Your task to perform on an android device: see sites visited before in the chrome app Image 0: 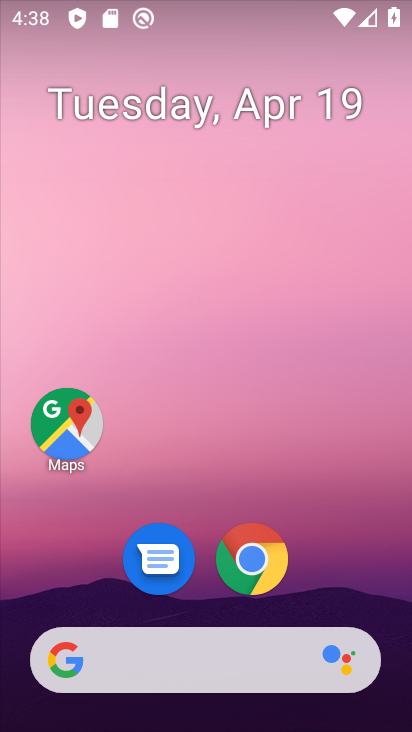
Step 0: click (268, 574)
Your task to perform on an android device: see sites visited before in the chrome app Image 1: 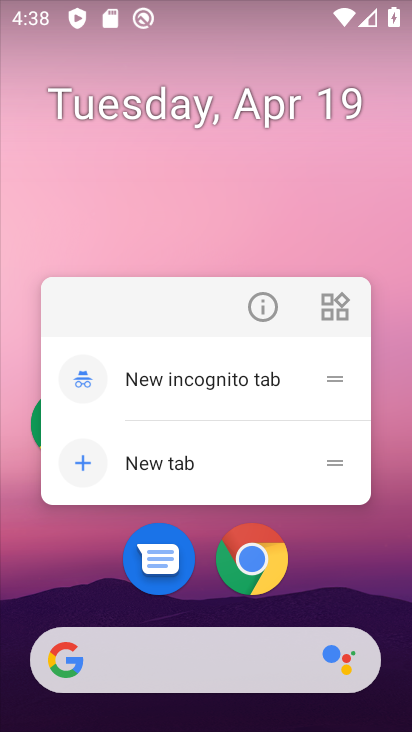
Step 1: click (268, 574)
Your task to perform on an android device: see sites visited before in the chrome app Image 2: 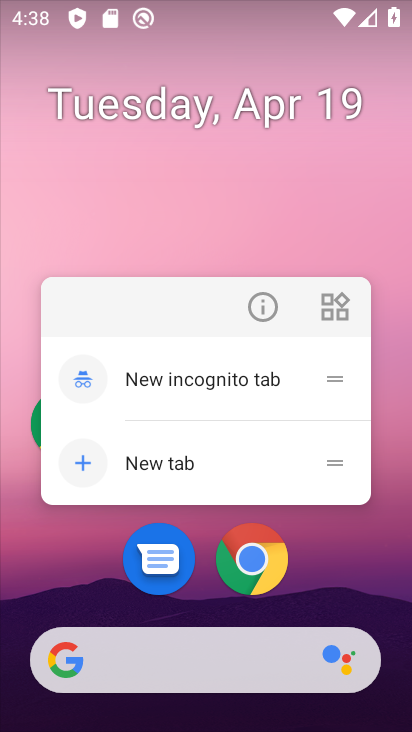
Step 2: click (256, 574)
Your task to perform on an android device: see sites visited before in the chrome app Image 3: 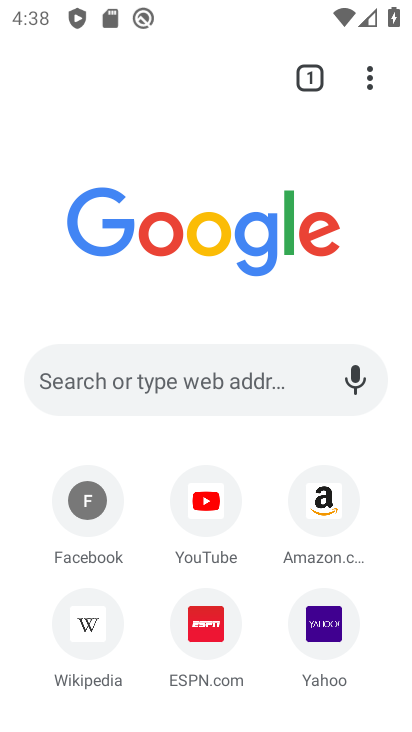
Step 3: click (368, 84)
Your task to perform on an android device: see sites visited before in the chrome app Image 4: 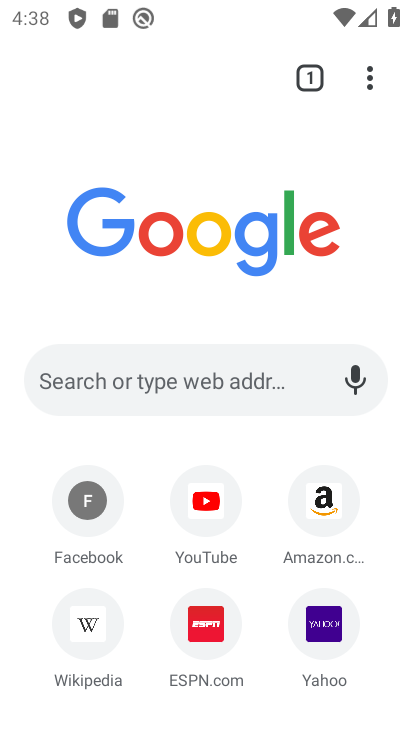
Step 4: click (363, 83)
Your task to perform on an android device: see sites visited before in the chrome app Image 5: 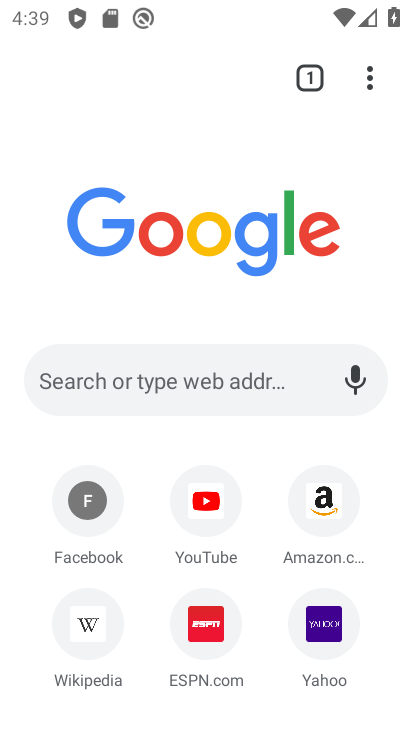
Step 5: click (368, 94)
Your task to perform on an android device: see sites visited before in the chrome app Image 6: 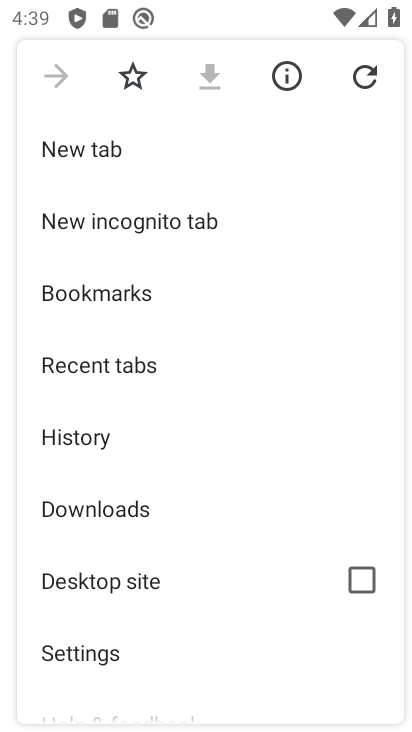
Step 6: click (114, 370)
Your task to perform on an android device: see sites visited before in the chrome app Image 7: 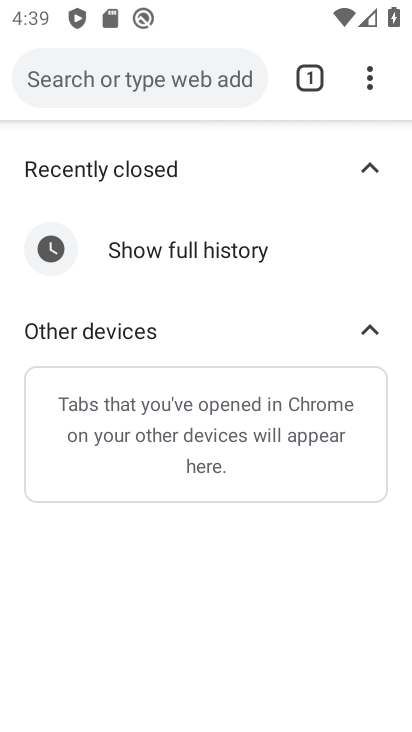
Step 7: task complete